Your task to perform on an android device: How much does a 3 bedroom apartment rent for in Philadelphia? Image 0: 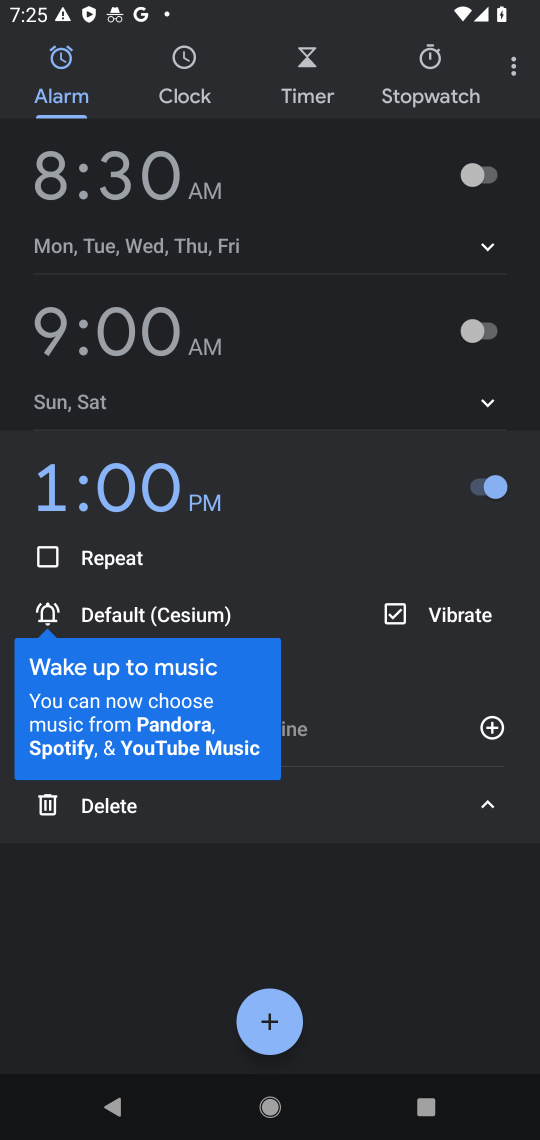
Step 0: press home button
Your task to perform on an android device: How much does a 3 bedroom apartment rent for in Philadelphia? Image 1: 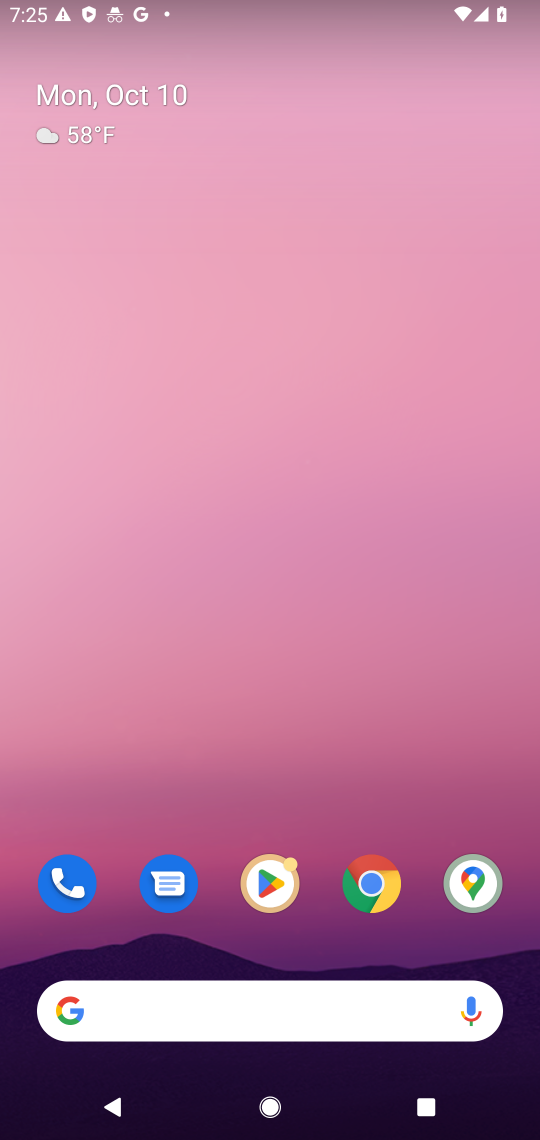
Step 1: drag from (198, 1020) to (205, 941)
Your task to perform on an android device: How much does a 3 bedroom apartment rent for in Philadelphia? Image 2: 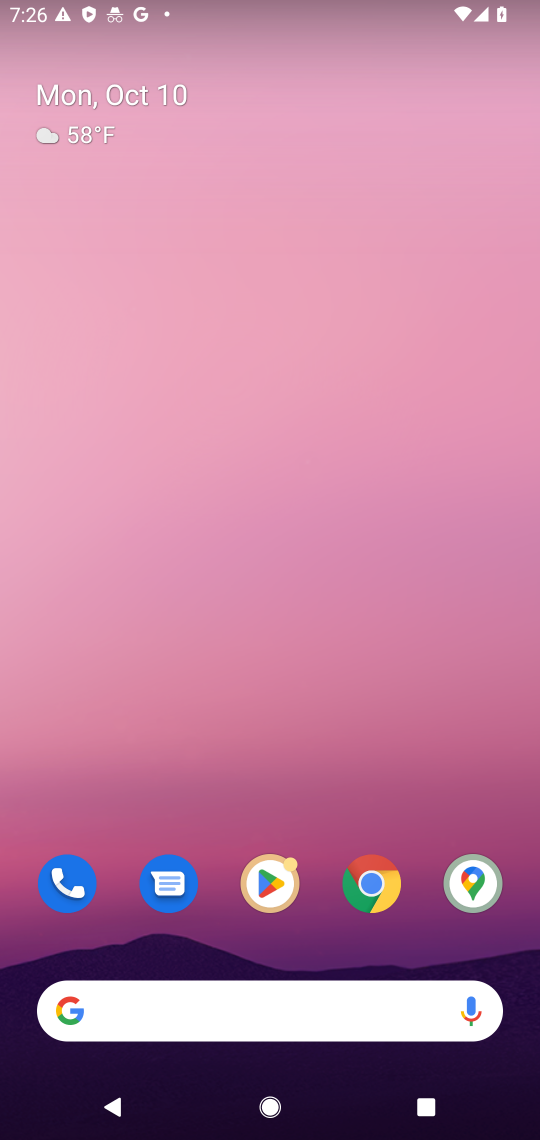
Step 2: drag from (352, 640) to (460, 113)
Your task to perform on an android device: How much does a 3 bedroom apartment rent for in Philadelphia? Image 3: 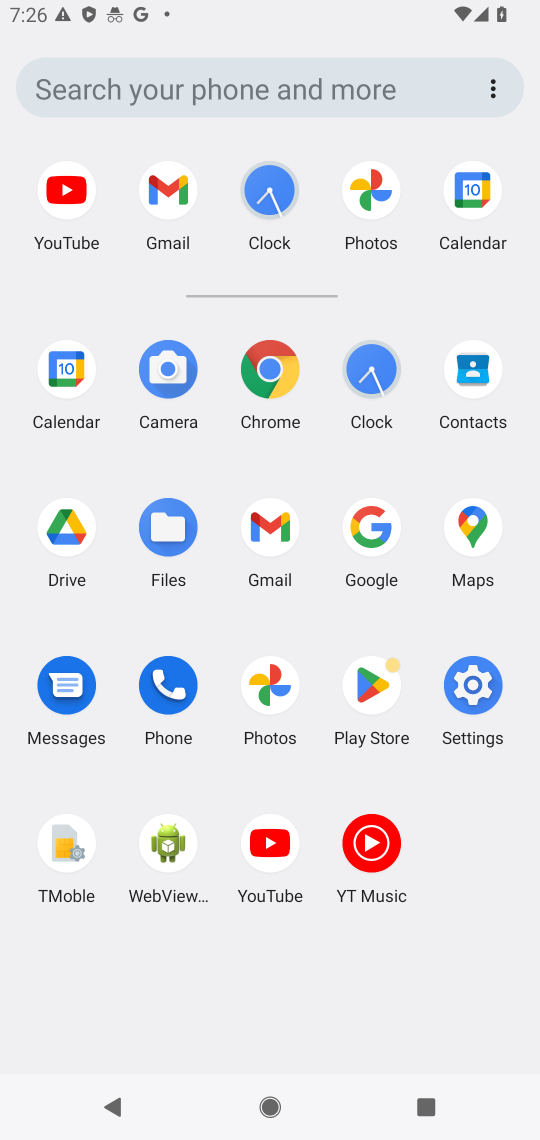
Step 3: click (376, 553)
Your task to perform on an android device: How much does a 3 bedroom apartment rent for in Philadelphia? Image 4: 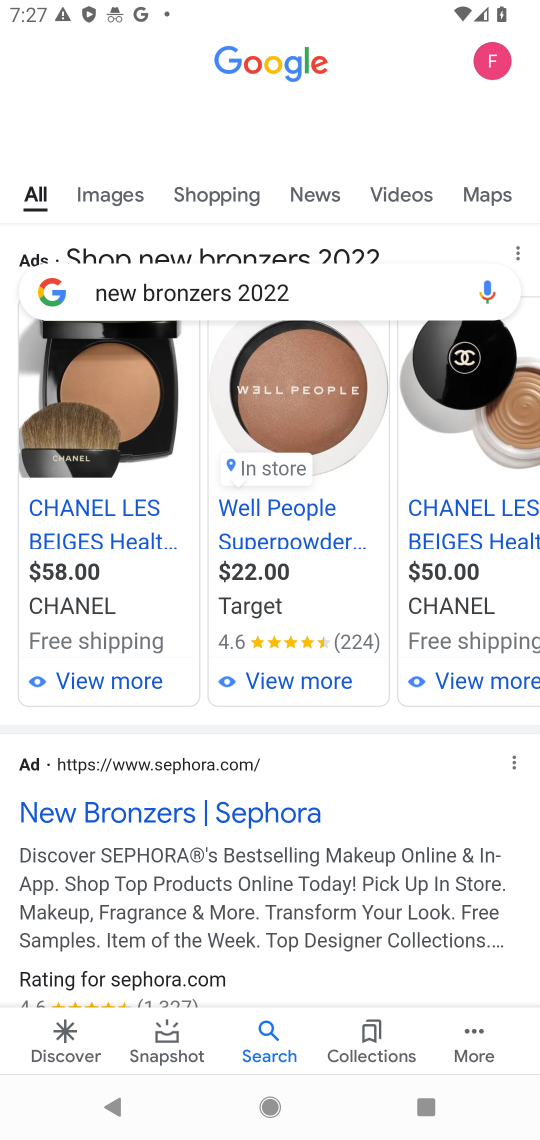
Step 4: click (402, 298)
Your task to perform on an android device: How much does a 3 bedroom apartment rent for in Philadelphia? Image 5: 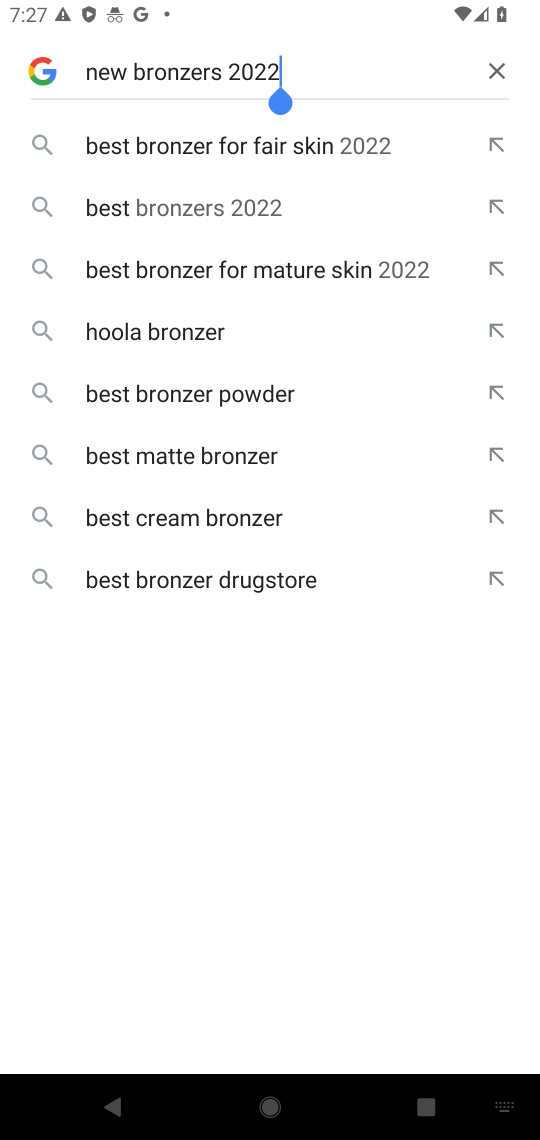
Step 5: click (502, 80)
Your task to perform on an android device: How much does a 3 bedroom apartment rent for in Philadelphia? Image 6: 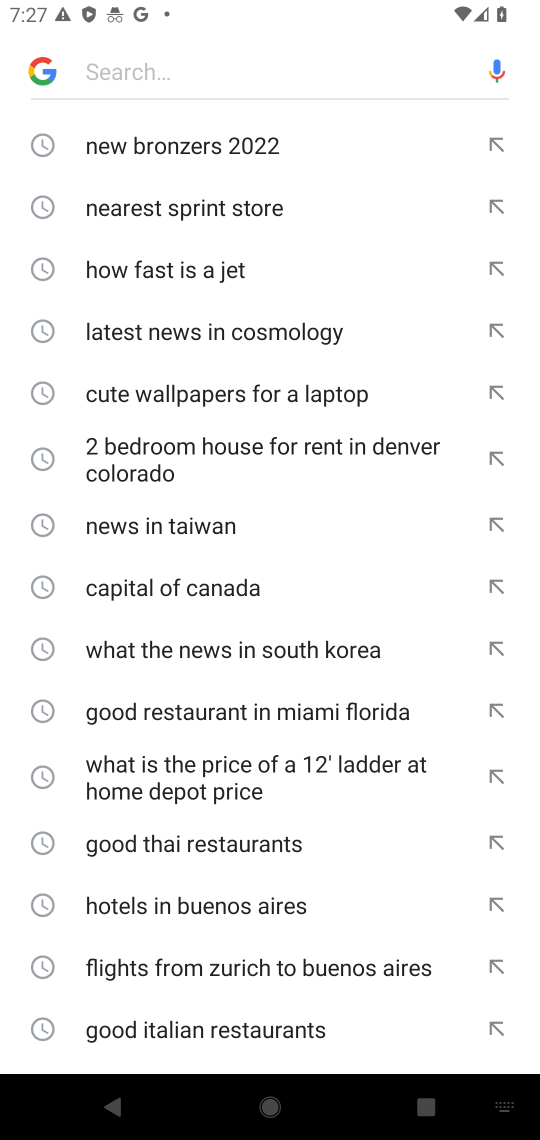
Step 6: type "3 bedroom apartment rent for in Philadelphia"
Your task to perform on an android device: How much does a 3 bedroom apartment rent for in Philadelphia? Image 7: 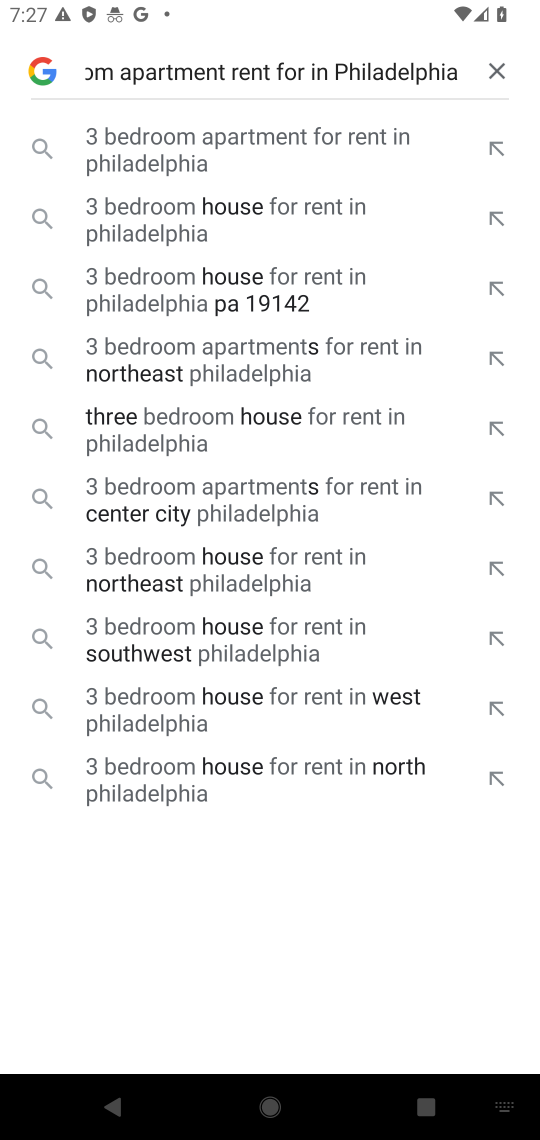
Step 7: click (280, 157)
Your task to perform on an android device: How much does a 3 bedroom apartment rent for in Philadelphia? Image 8: 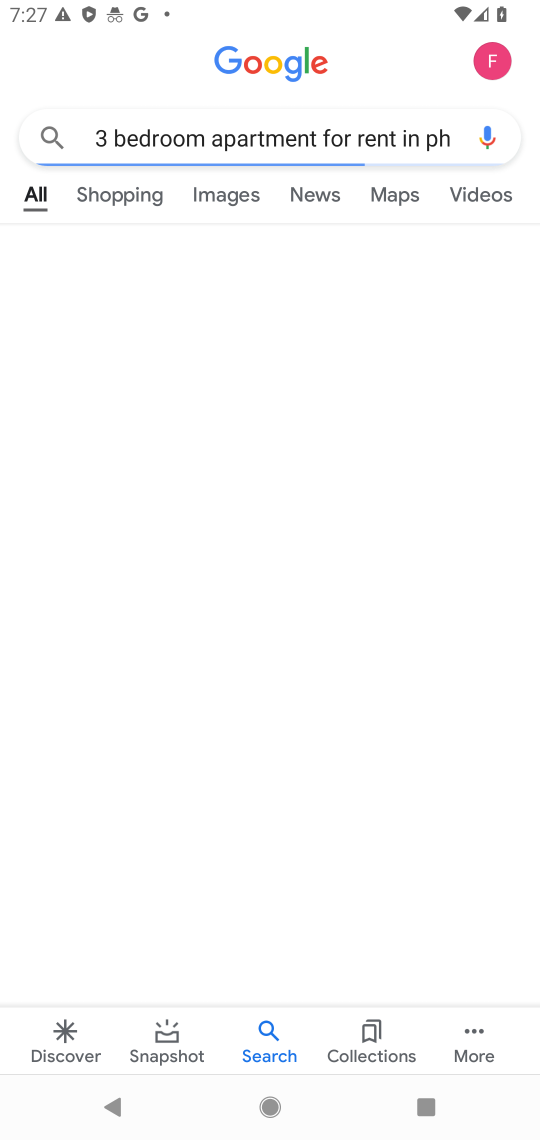
Step 8: click (280, 157)
Your task to perform on an android device: How much does a 3 bedroom apartment rent for in Philadelphia? Image 9: 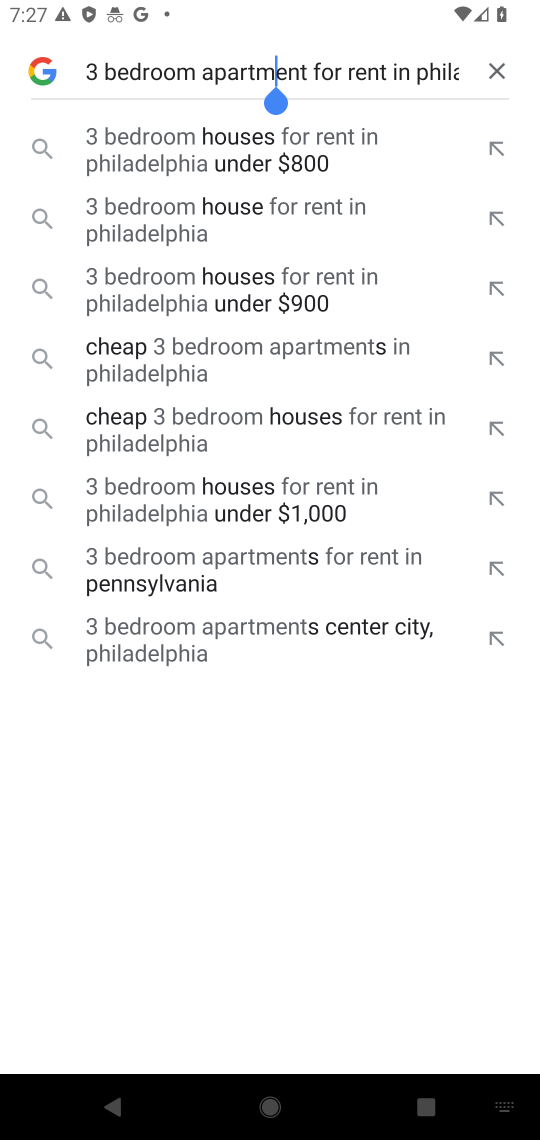
Step 9: click (342, 224)
Your task to perform on an android device: How much does a 3 bedroom apartment rent for in Philadelphia? Image 10: 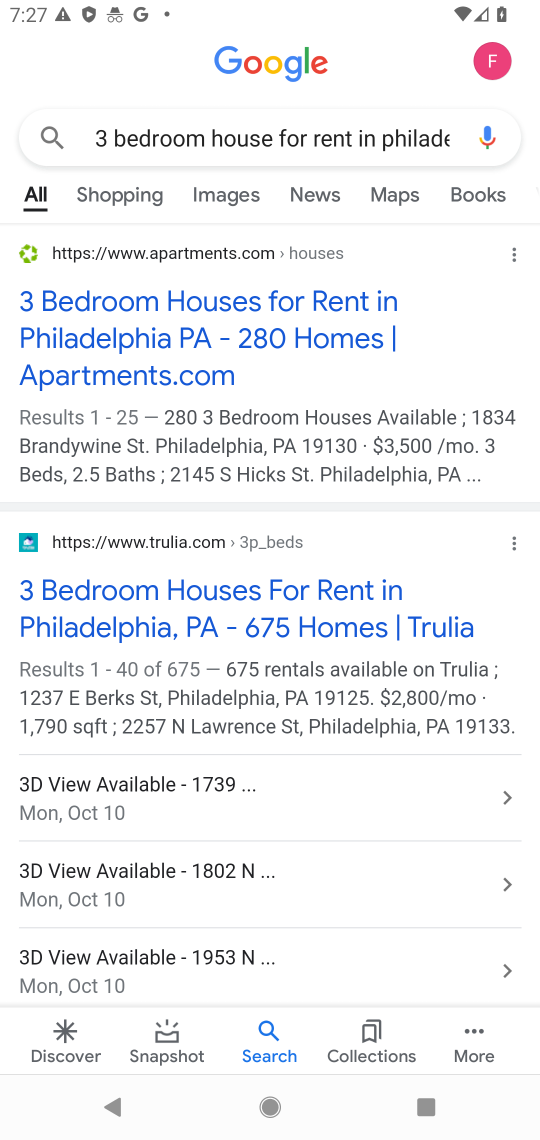
Step 10: task complete